Your task to perform on an android device: Go to Amazon Image 0: 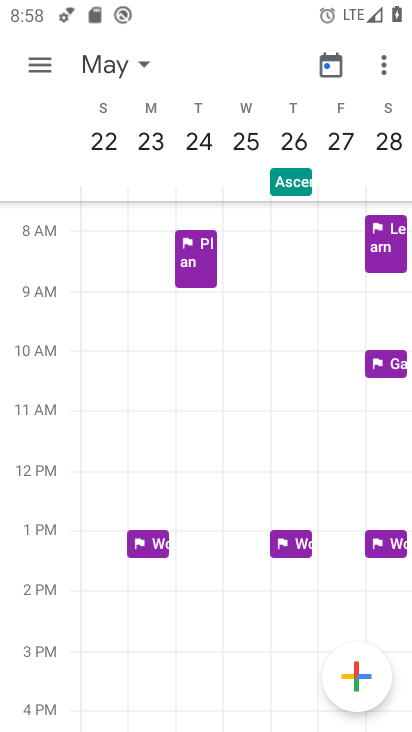
Step 0: press home button
Your task to perform on an android device: Go to Amazon Image 1: 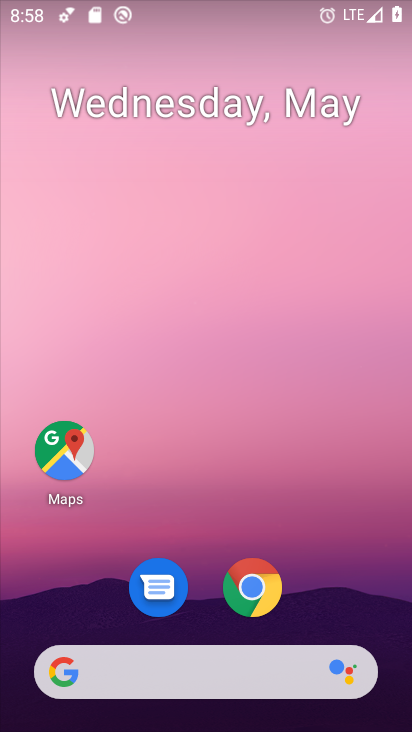
Step 1: click (265, 584)
Your task to perform on an android device: Go to Amazon Image 2: 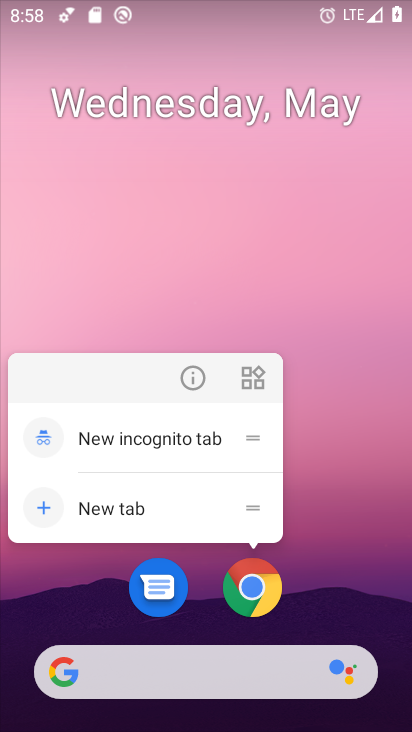
Step 2: click (266, 584)
Your task to perform on an android device: Go to Amazon Image 3: 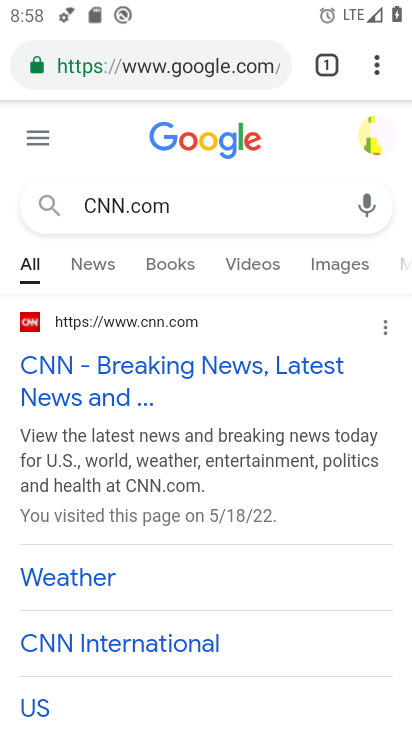
Step 3: click (226, 63)
Your task to perform on an android device: Go to Amazon Image 4: 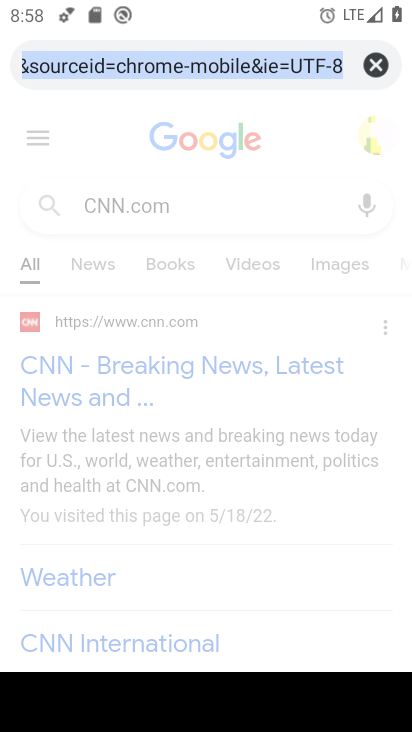
Step 4: type "Amazon"
Your task to perform on an android device: Go to Amazon Image 5: 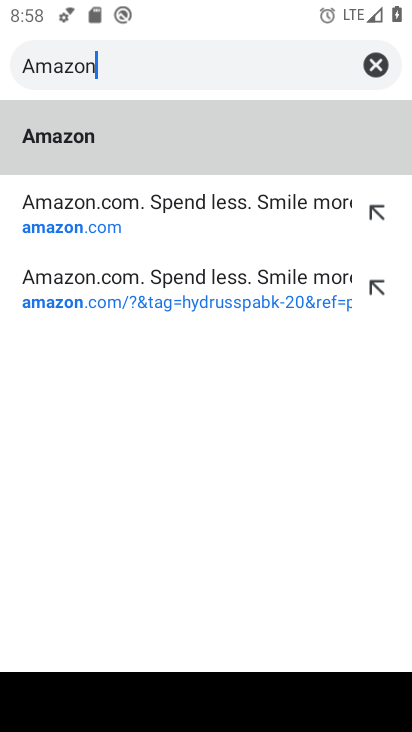
Step 5: click (122, 147)
Your task to perform on an android device: Go to Amazon Image 6: 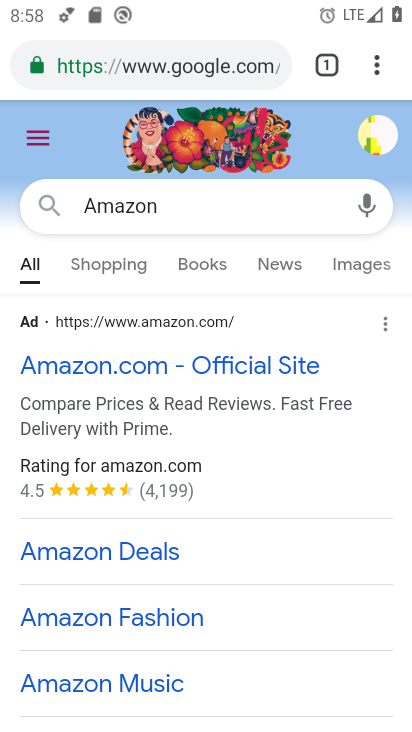
Step 6: task complete